Your task to perform on an android device: find which apps use the phone's location Image 0: 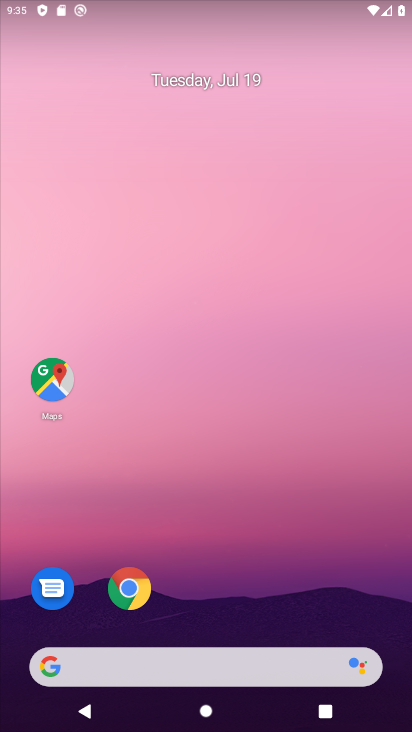
Step 0: drag from (215, 270) to (215, 86)
Your task to perform on an android device: find which apps use the phone's location Image 1: 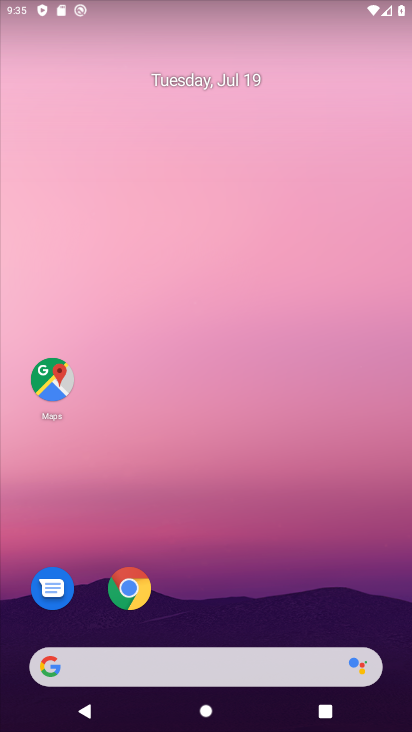
Step 1: drag from (261, 528) to (259, 72)
Your task to perform on an android device: find which apps use the phone's location Image 2: 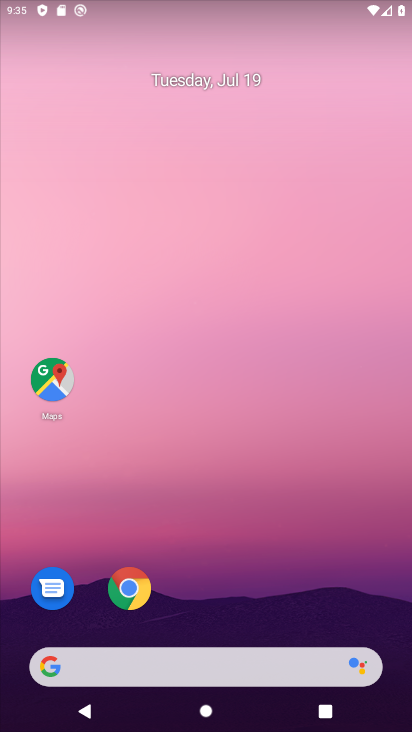
Step 2: drag from (260, 472) to (214, 58)
Your task to perform on an android device: find which apps use the phone's location Image 3: 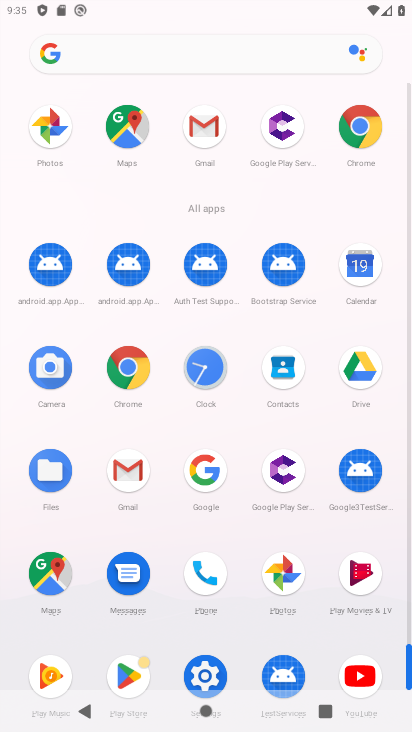
Step 3: drag from (186, 589) to (183, 188)
Your task to perform on an android device: find which apps use the phone's location Image 4: 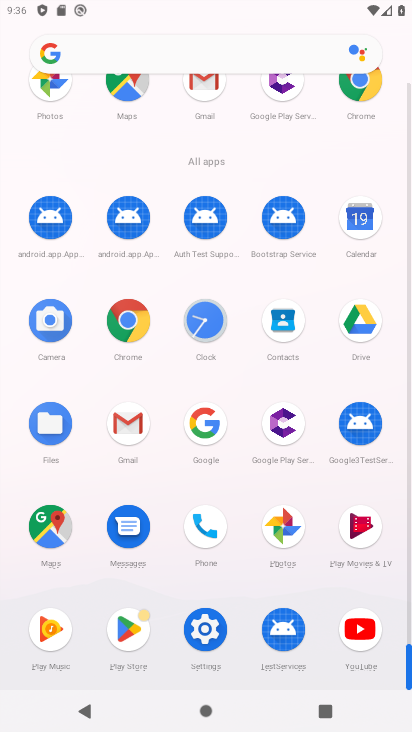
Step 4: click (204, 639)
Your task to perform on an android device: find which apps use the phone's location Image 5: 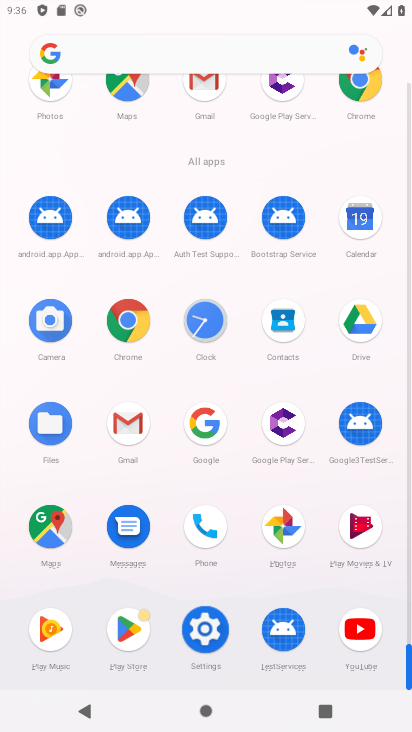
Step 5: click (207, 638)
Your task to perform on an android device: find which apps use the phone's location Image 6: 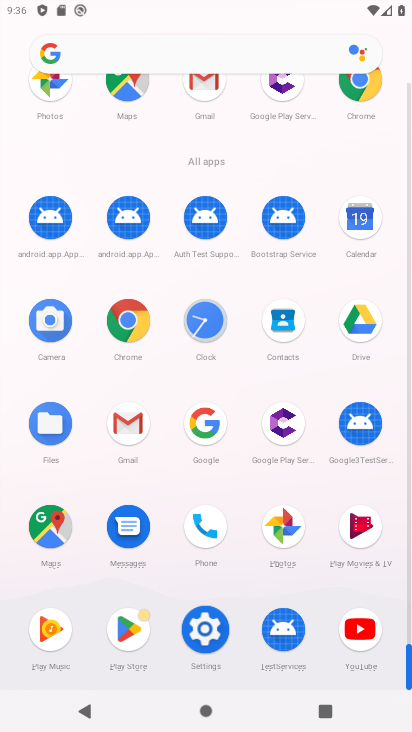
Step 6: click (207, 638)
Your task to perform on an android device: find which apps use the phone's location Image 7: 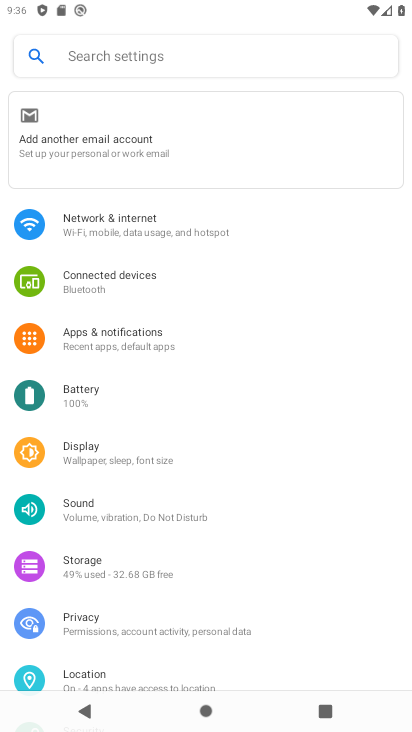
Step 7: click (92, 678)
Your task to perform on an android device: find which apps use the phone's location Image 8: 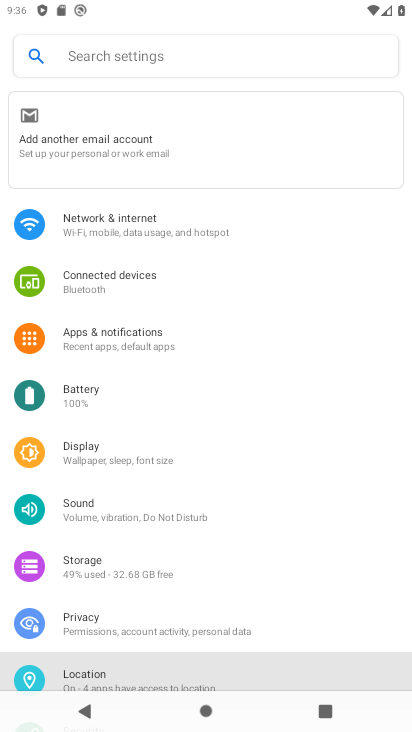
Step 8: click (92, 680)
Your task to perform on an android device: find which apps use the phone's location Image 9: 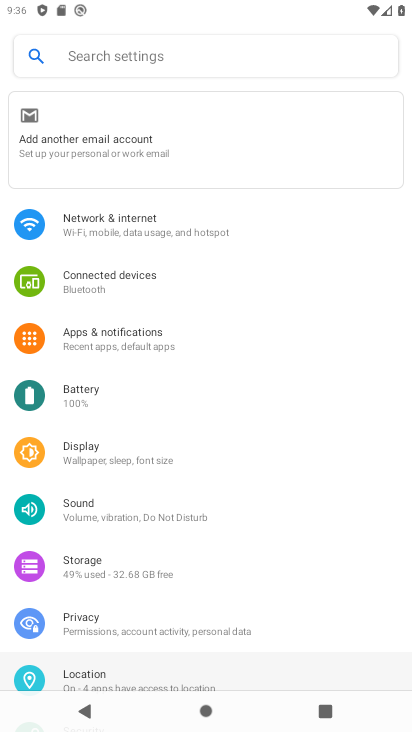
Step 9: click (94, 683)
Your task to perform on an android device: find which apps use the phone's location Image 10: 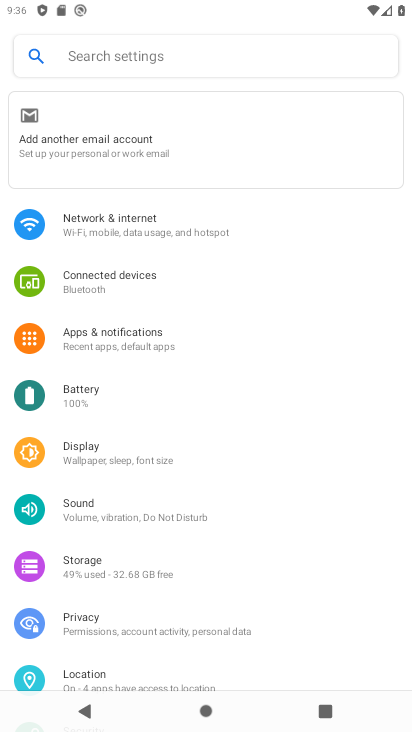
Step 10: click (94, 683)
Your task to perform on an android device: find which apps use the phone's location Image 11: 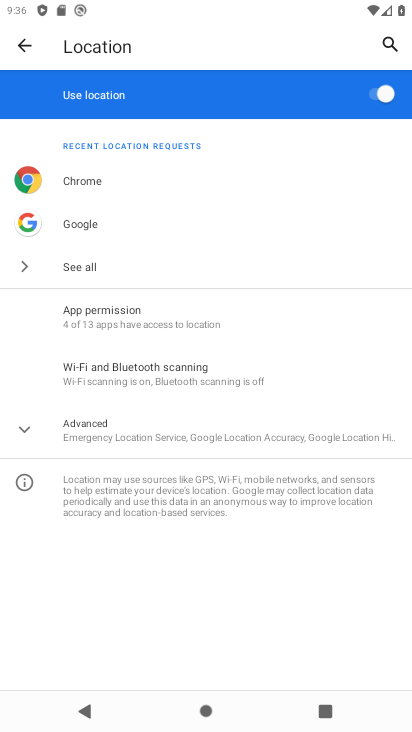
Step 11: click (87, 304)
Your task to perform on an android device: find which apps use the phone's location Image 12: 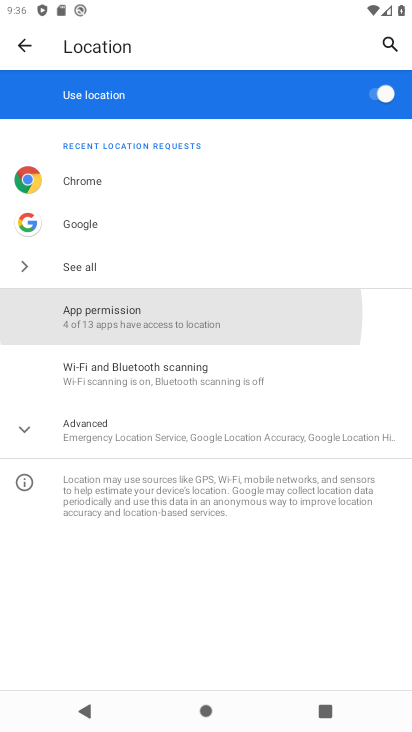
Step 12: click (83, 309)
Your task to perform on an android device: find which apps use the phone's location Image 13: 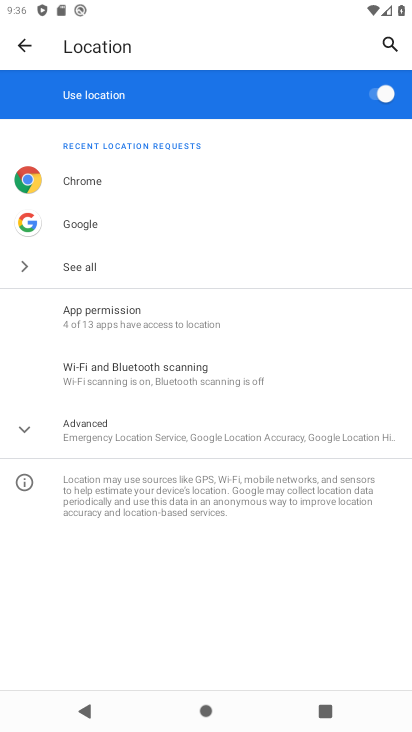
Step 13: click (83, 310)
Your task to perform on an android device: find which apps use the phone's location Image 14: 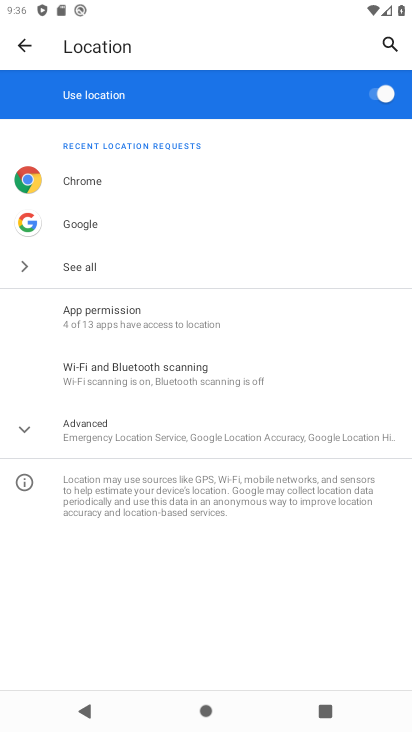
Step 14: click (83, 310)
Your task to perform on an android device: find which apps use the phone's location Image 15: 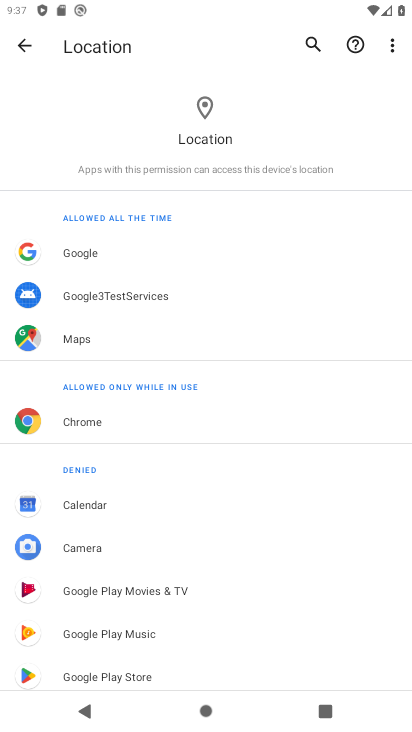
Step 15: drag from (197, 554) to (205, 359)
Your task to perform on an android device: find which apps use the phone's location Image 16: 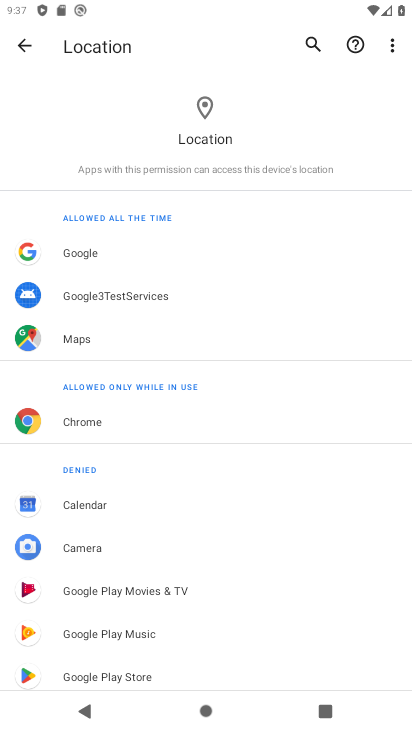
Step 16: drag from (189, 610) to (230, 509)
Your task to perform on an android device: find which apps use the phone's location Image 17: 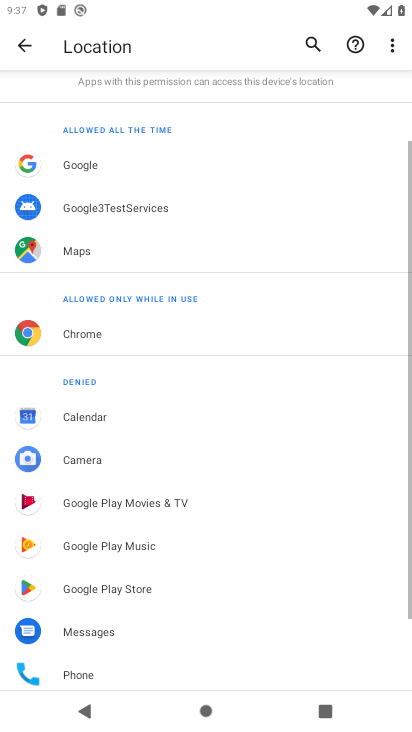
Step 17: drag from (171, 574) to (160, 300)
Your task to perform on an android device: find which apps use the phone's location Image 18: 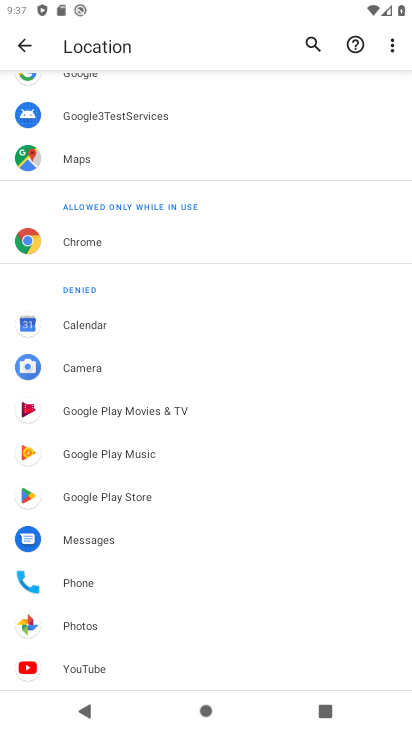
Step 18: click (168, 273)
Your task to perform on an android device: find which apps use the phone's location Image 19: 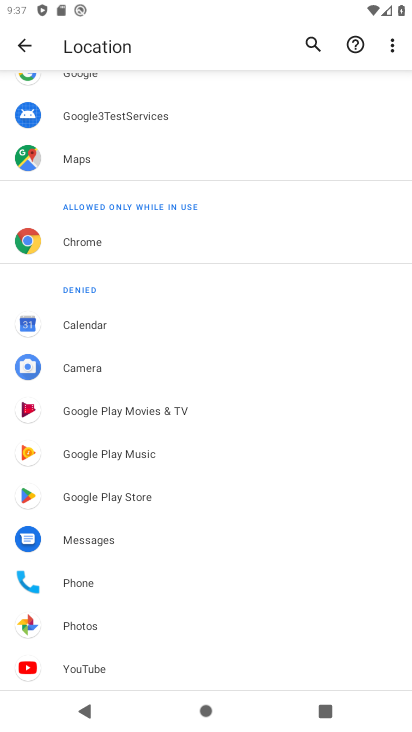
Step 19: click (324, 94)
Your task to perform on an android device: find which apps use the phone's location Image 20: 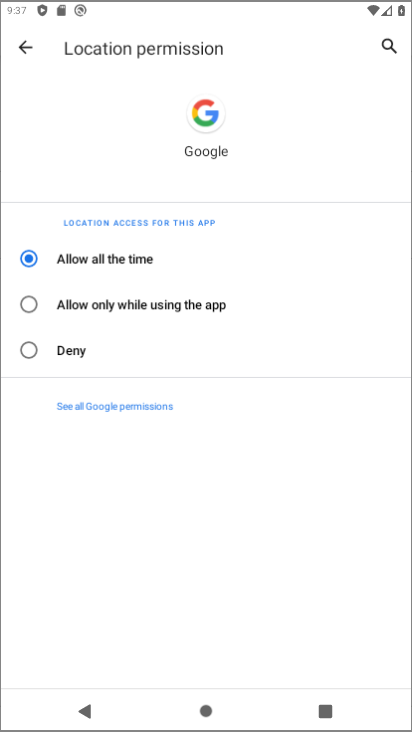
Step 20: task complete